Your task to perform on an android device: View the shopping cart on newegg. Add alienware aurora to the cart on newegg, then select checkout. Image 0: 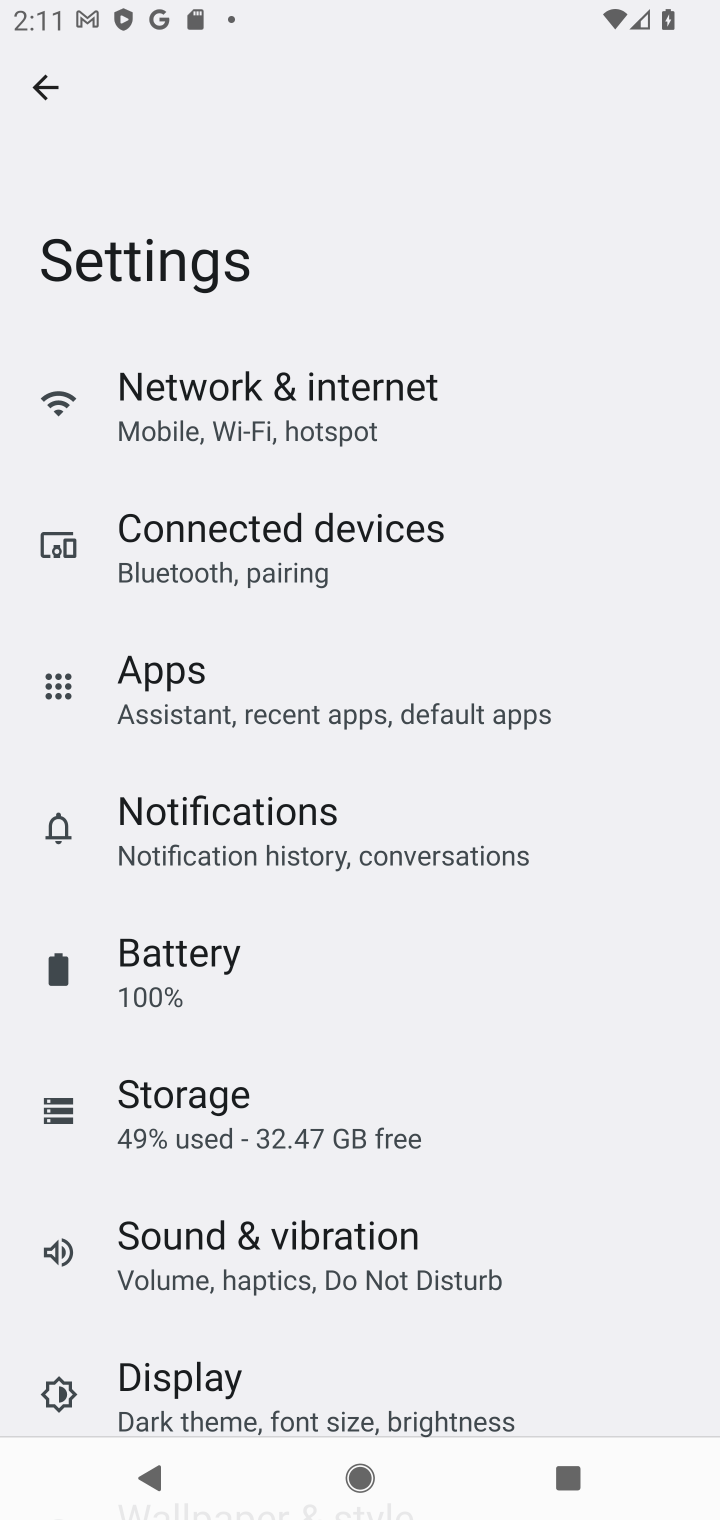
Step 0: press home button
Your task to perform on an android device: View the shopping cart on newegg. Add alienware aurora to the cart on newegg, then select checkout. Image 1: 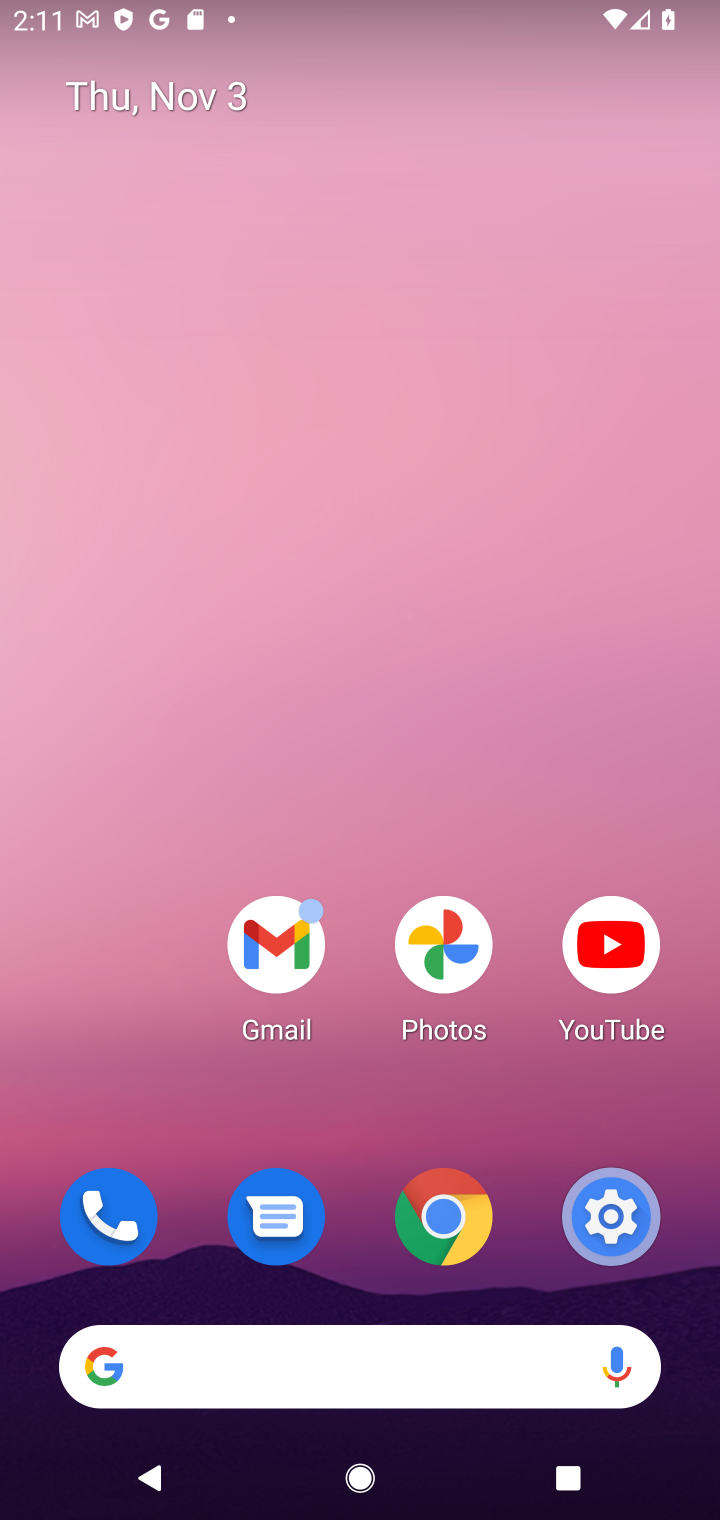
Step 1: drag from (354, 1154) to (407, 0)
Your task to perform on an android device: View the shopping cart on newegg. Add alienware aurora to the cart on newegg, then select checkout. Image 2: 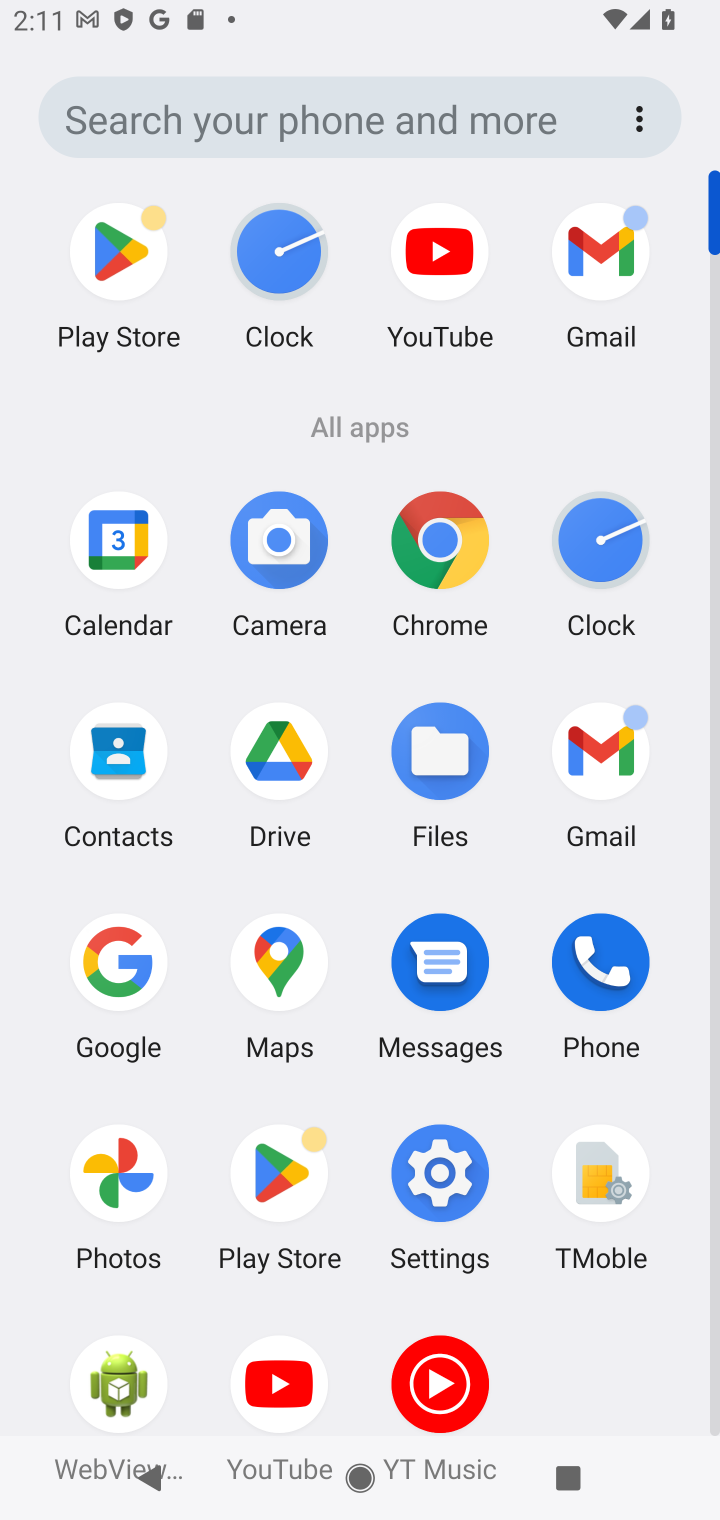
Step 2: click (432, 525)
Your task to perform on an android device: View the shopping cart on newegg. Add alienware aurora to the cart on newegg, then select checkout. Image 3: 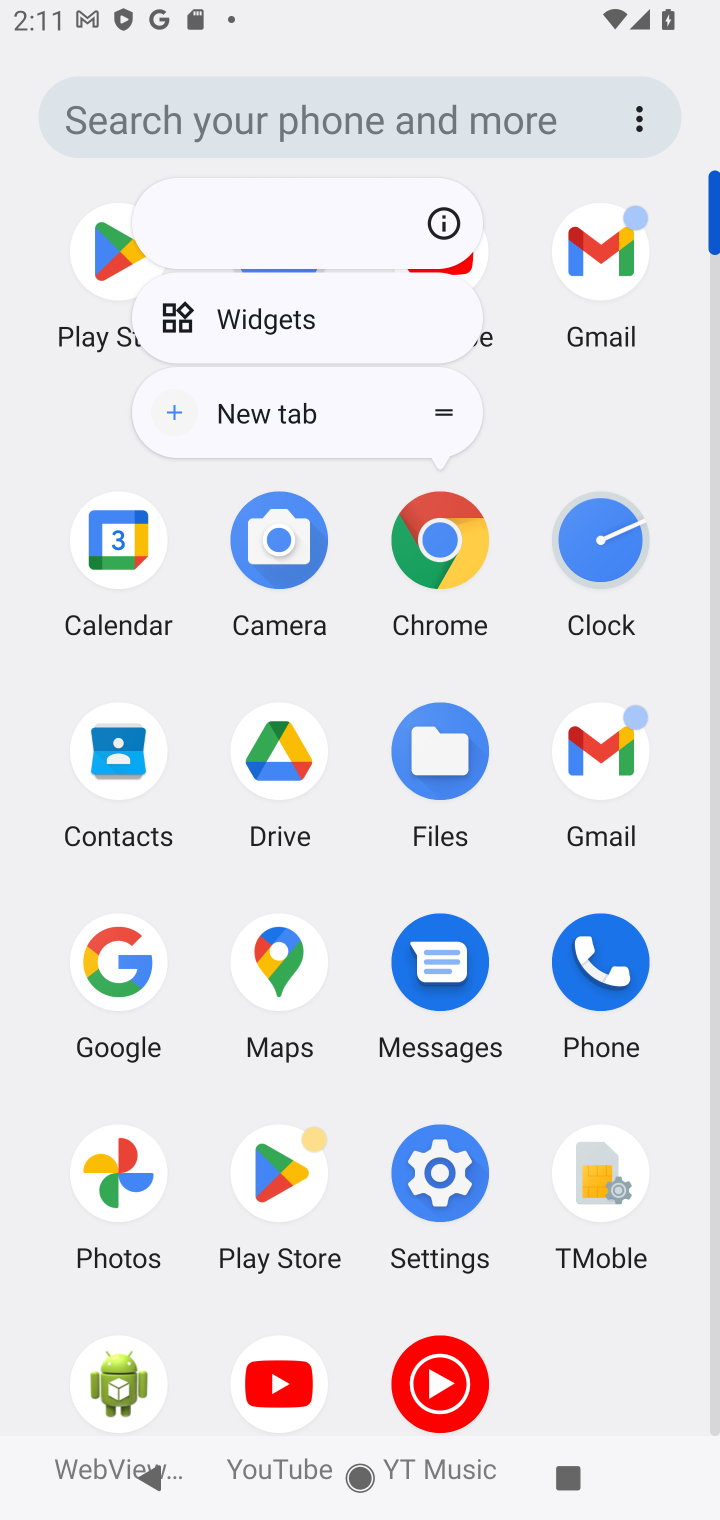
Step 3: click (433, 532)
Your task to perform on an android device: View the shopping cart on newegg. Add alienware aurora to the cart on newegg, then select checkout. Image 4: 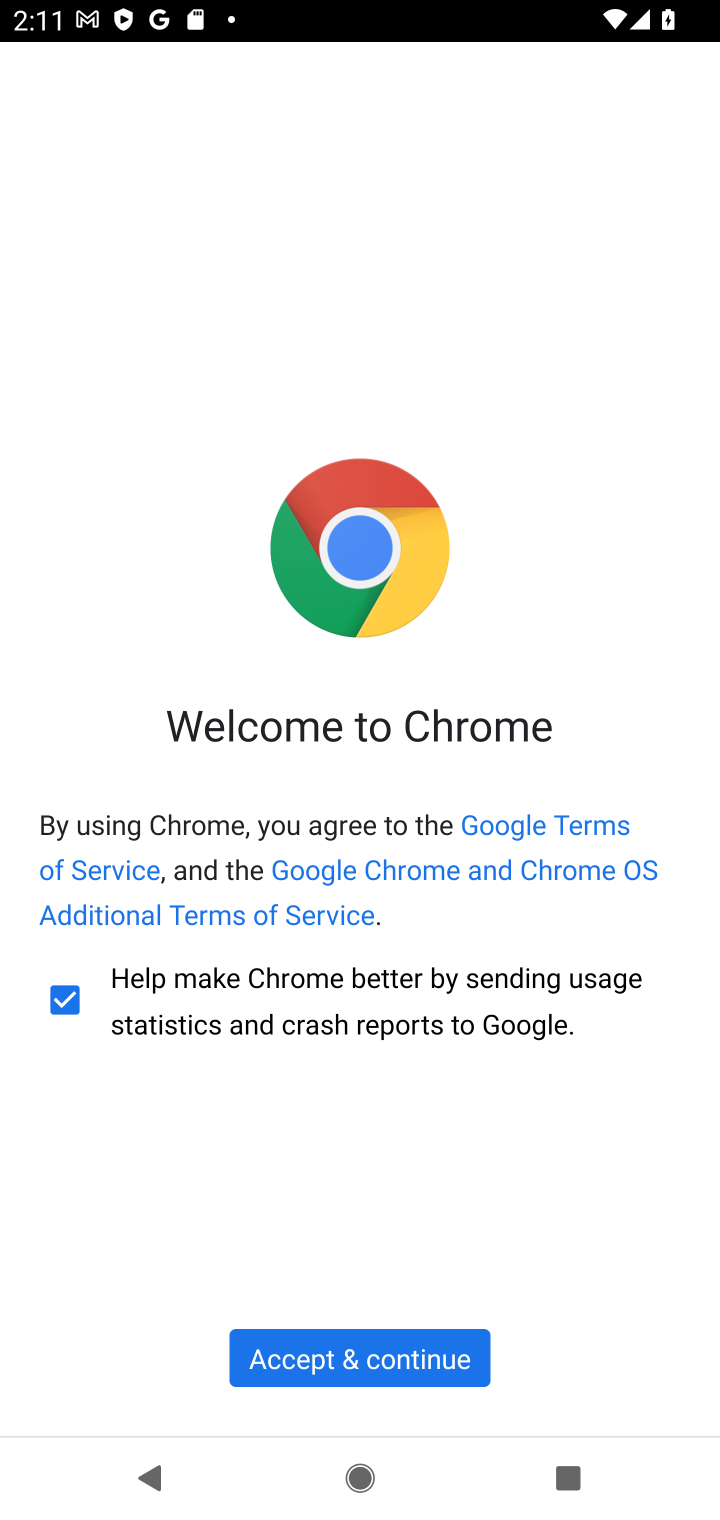
Step 4: click (341, 1351)
Your task to perform on an android device: View the shopping cart on newegg. Add alienware aurora to the cart on newegg, then select checkout. Image 5: 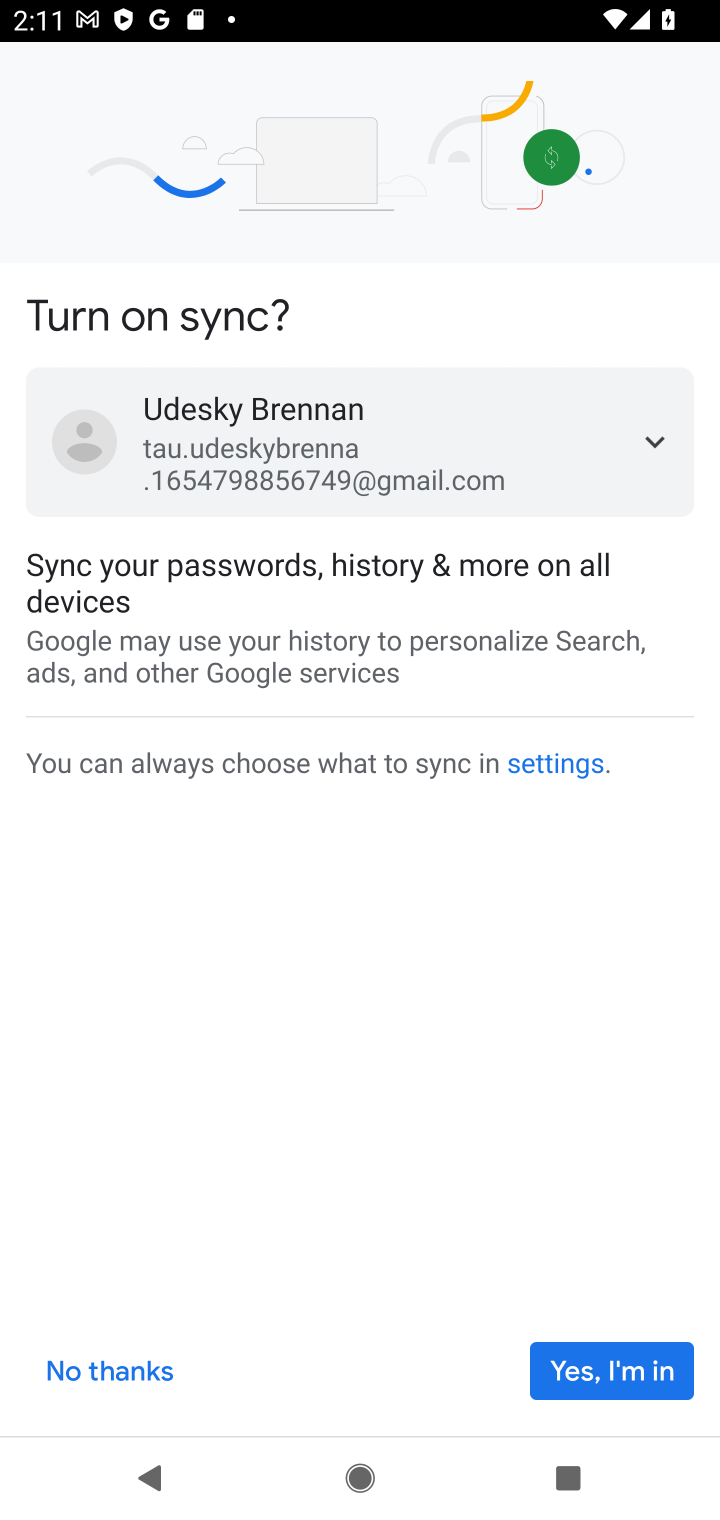
Step 5: click (605, 1372)
Your task to perform on an android device: View the shopping cart on newegg. Add alienware aurora to the cart on newegg, then select checkout. Image 6: 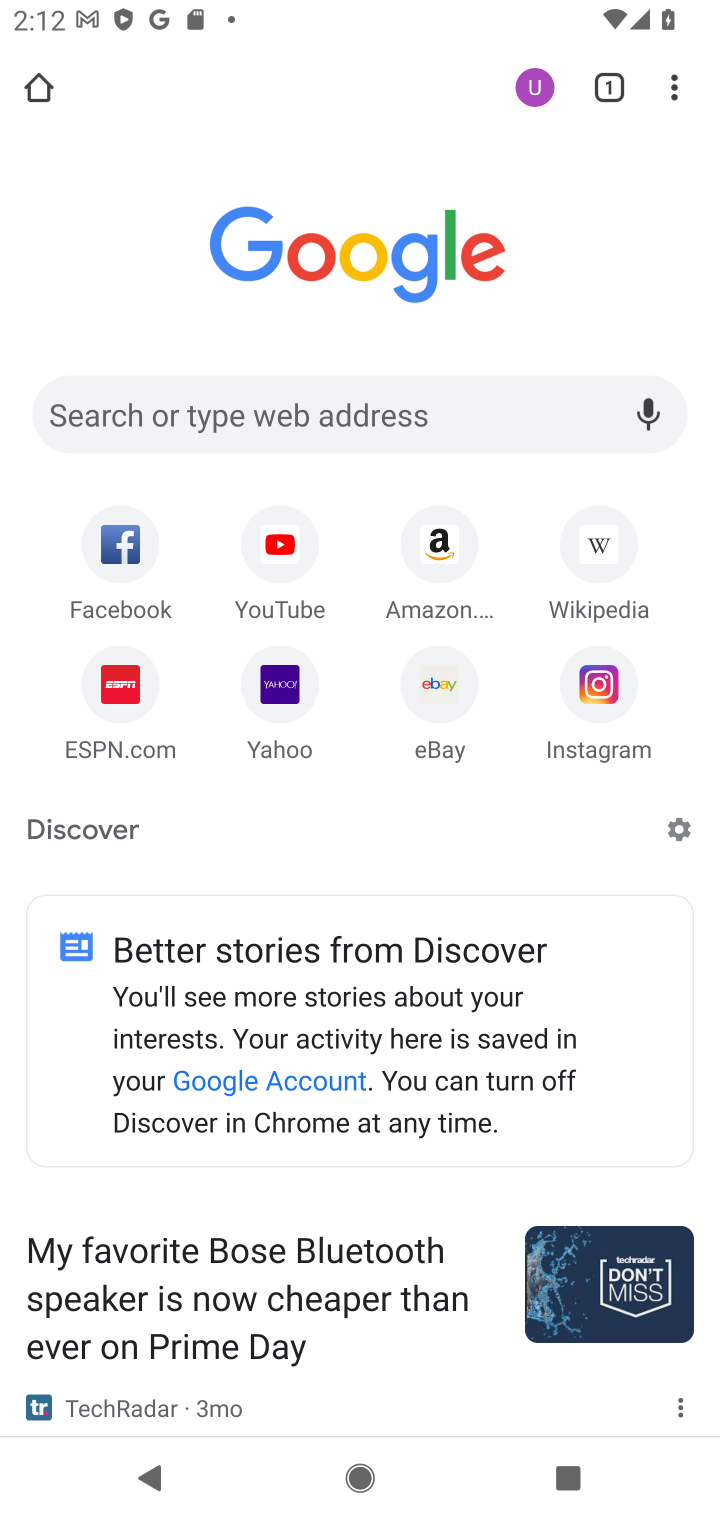
Step 6: click (144, 411)
Your task to perform on an android device: View the shopping cart on newegg. Add alienware aurora to the cart on newegg, then select checkout. Image 7: 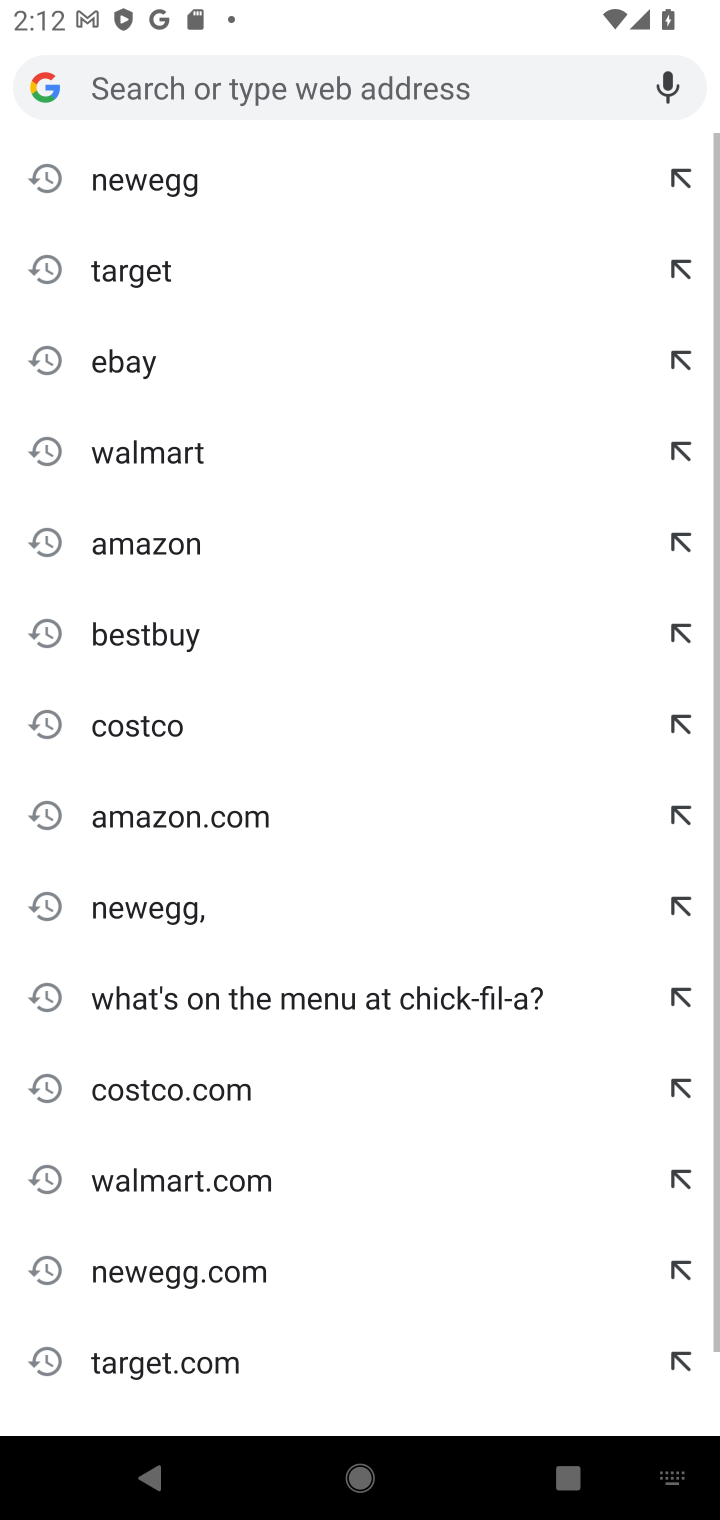
Step 7: click (190, 161)
Your task to perform on an android device: View the shopping cart on newegg. Add alienware aurora to the cart on newegg, then select checkout. Image 8: 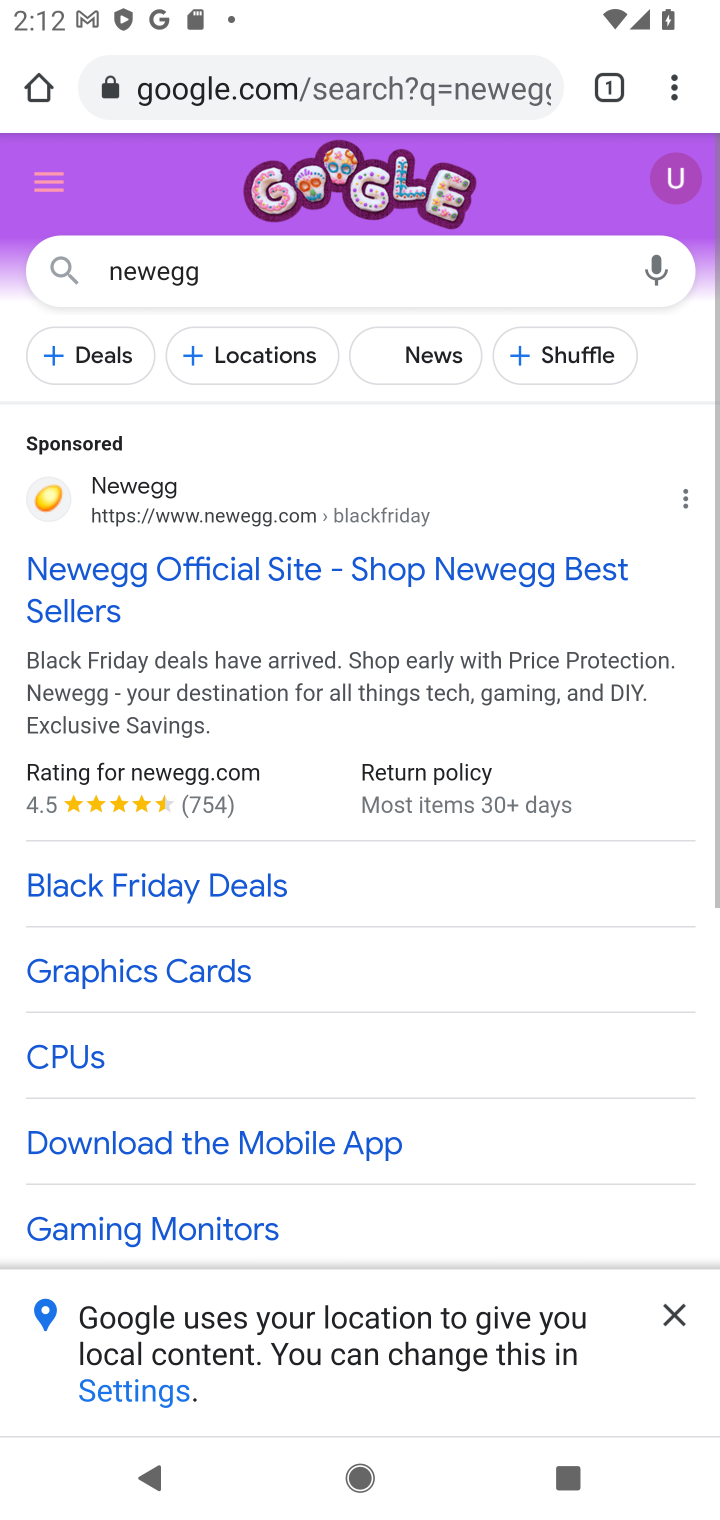
Step 8: click (673, 1306)
Your task to perform on an android device: View the shopping cart on newegg. Add alienware aurora to the cart on newegg, then select checkout. Image 9: 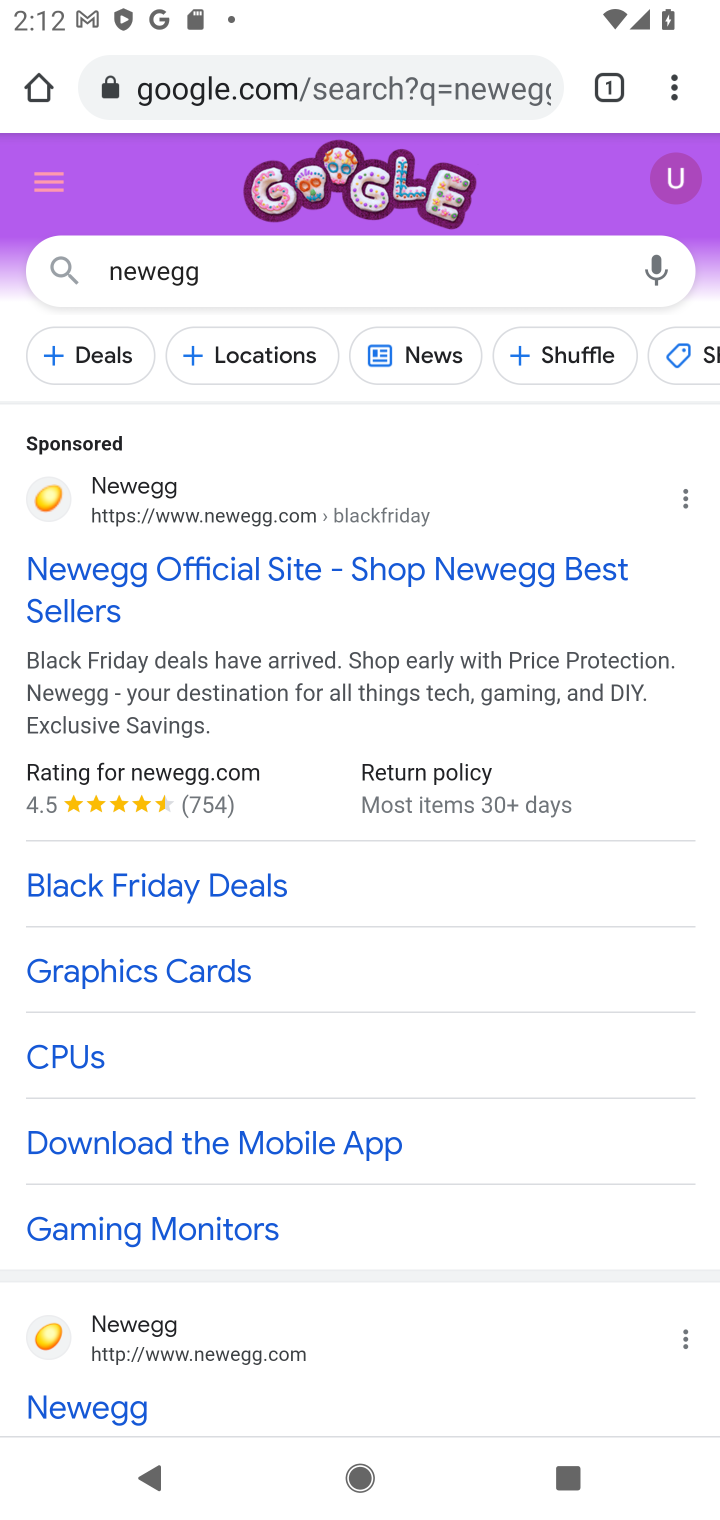
Step 9: click (160, 584)
Your task to perform on an android device: View the shopping cart on newegg. Add alienware aurora to the cart on newegg, then select checkout. Image 10: 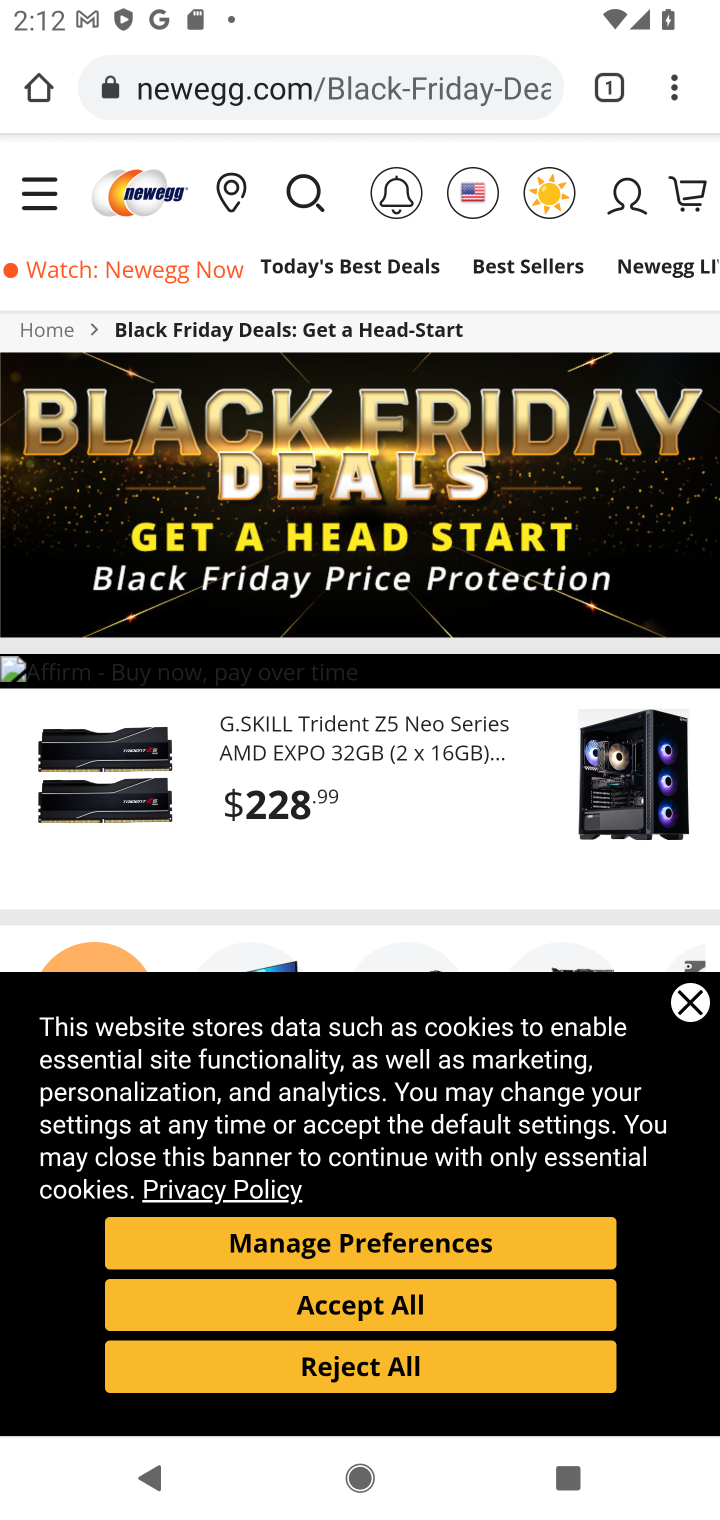
Step 10: click (304, 191)
Your task to perform on an android device: View the shopping cart on newegg. Add alienware aurora to the cart on newegg, then select checkout. Image 11: 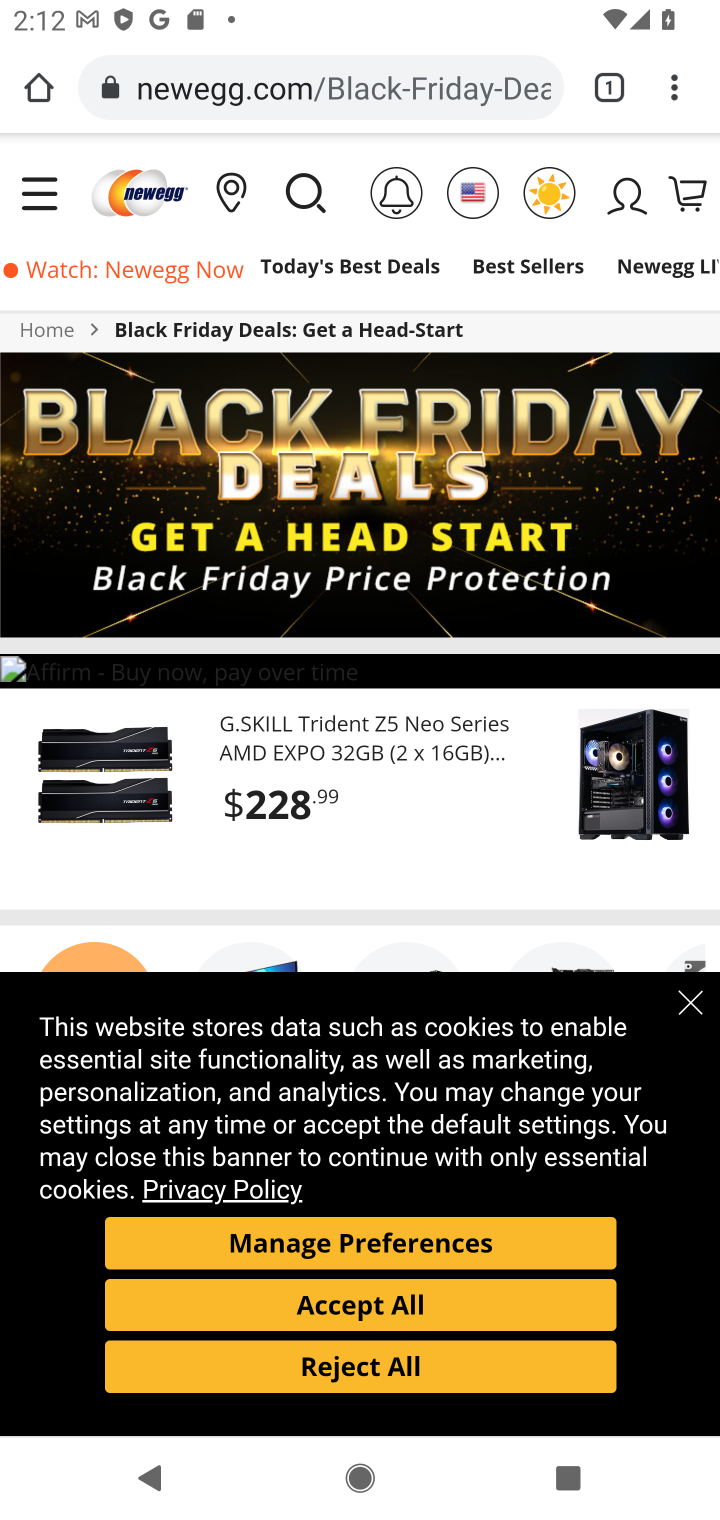
Step 11: click (340, 1296)
Your task to perform on an android device: View the shopping cart on newegg. Add alienware aurora to the cart on newegg, then select checkout. Image 12: 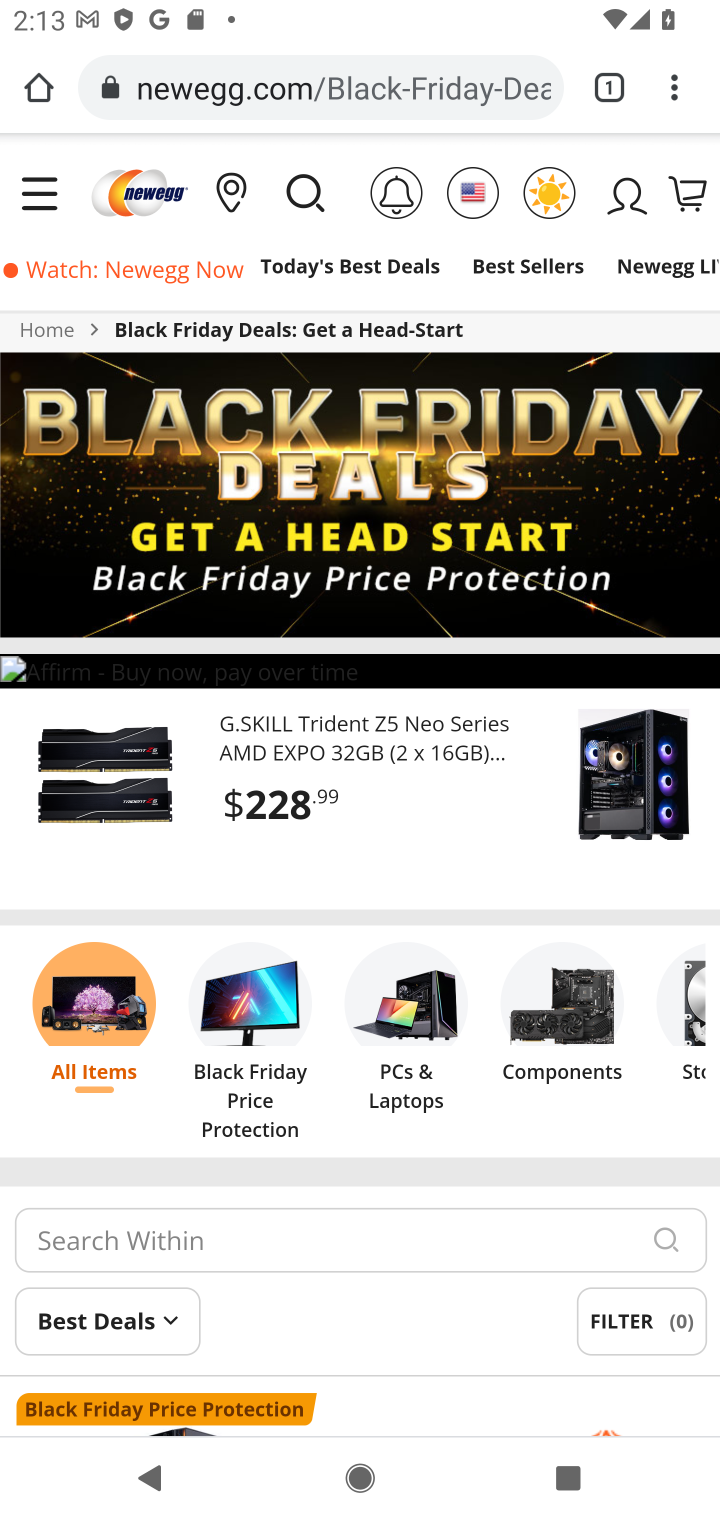
Step 12: click (307, 186)
Your task to perform on an android device: View the shopping cart on newegg. Add alienware aurora to the cart on newegg, then select checkout. Image 13: 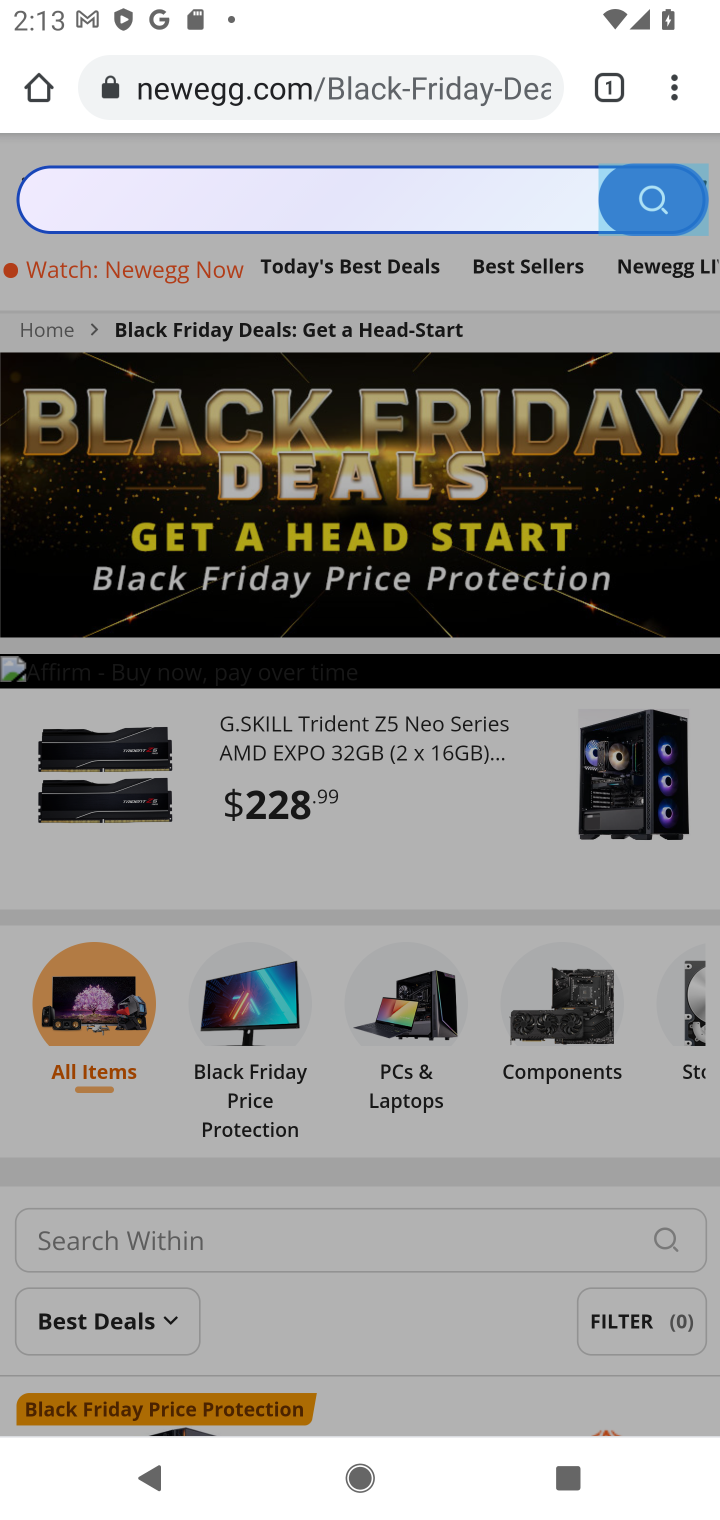
Step 13: click (110, 193)
Your task to perform on an android device: View the shopping cart on newegg. Add alienware aurora to the cart on newegg, then select checkout. Image 14: 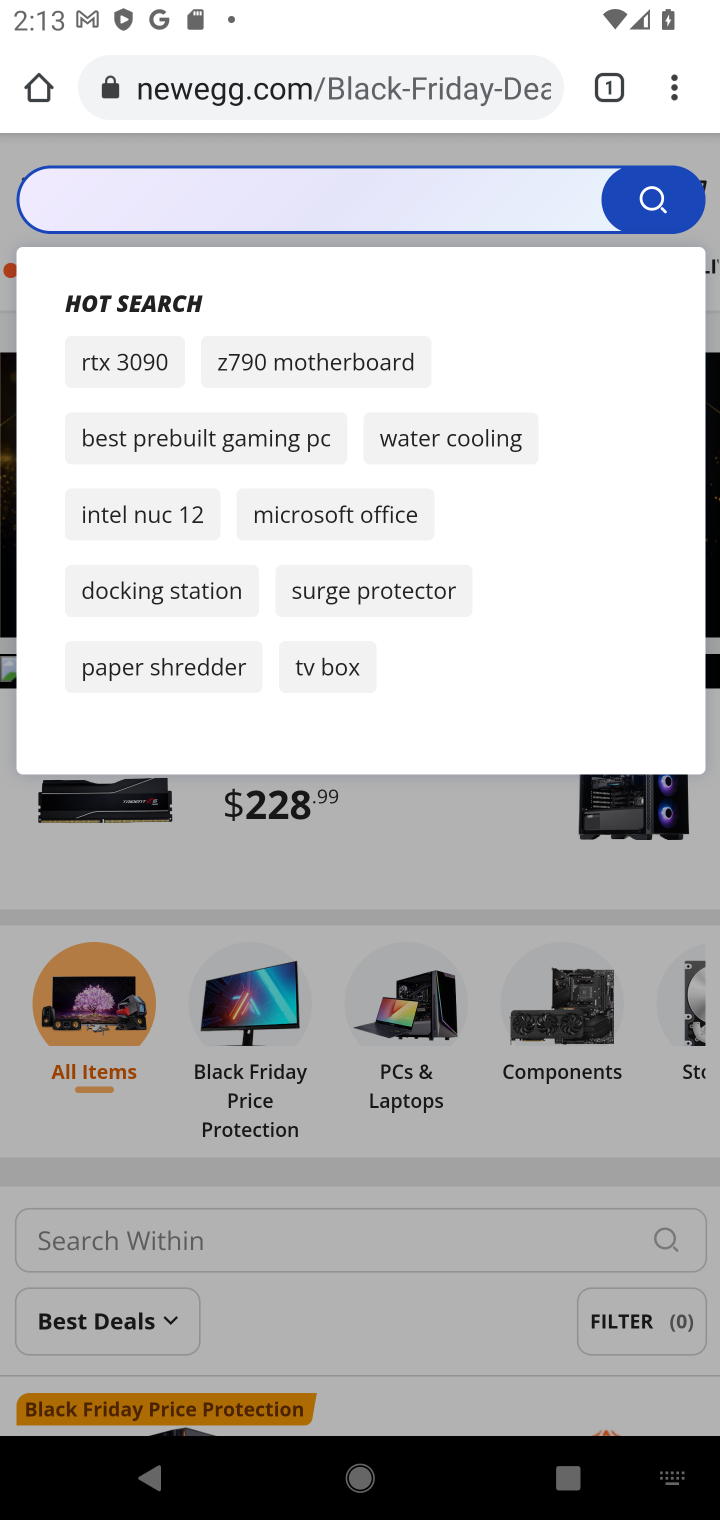
Step 14: type "alienware aurora"
Your task to perform on an android device: View the shopping cart on newegg. Add alienware aurora to the cart on newegg, then select checkout. Image 15: 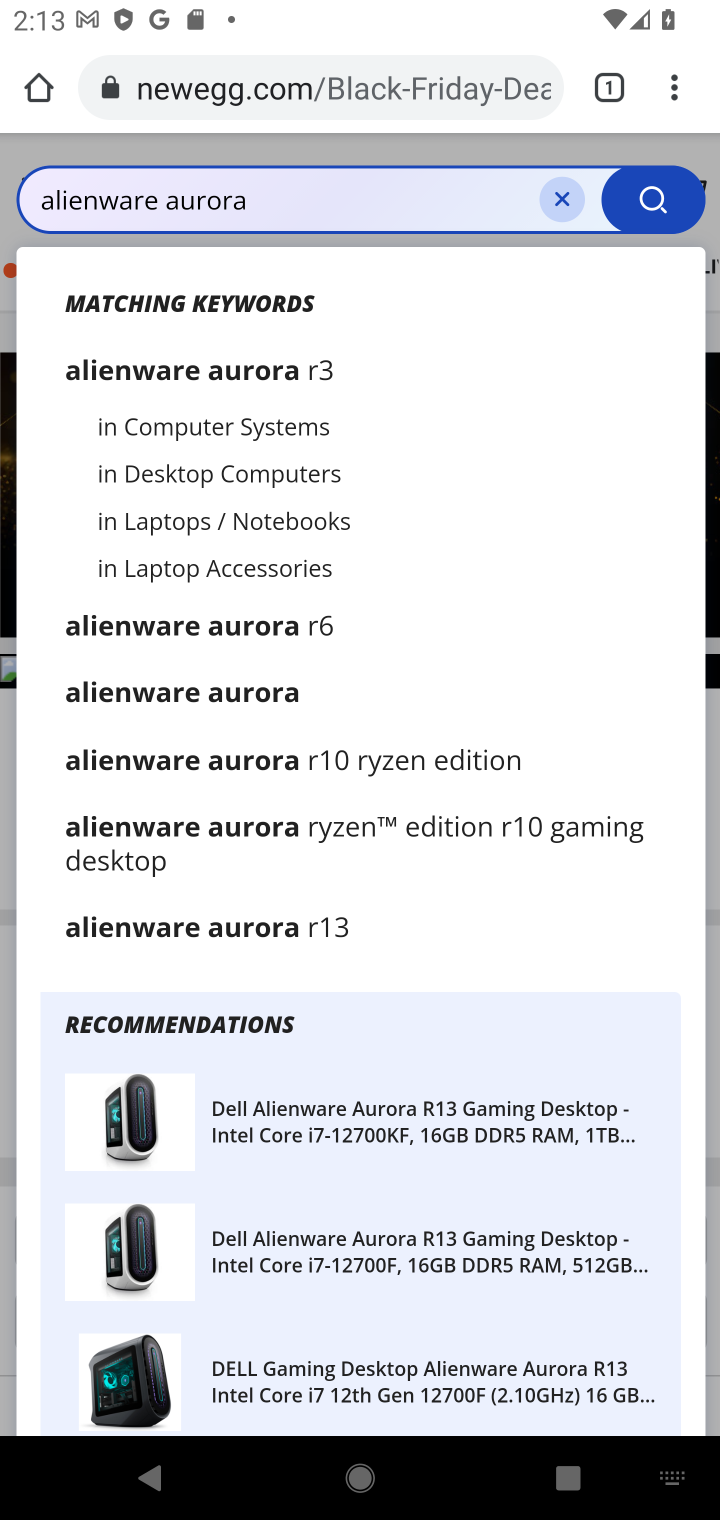
Step 15: click (140, 692)
Your task to perform on an android device: View the shopping cart on newegg. Add alienware aurora to the cart on newegg, then select checkout. Image 16: 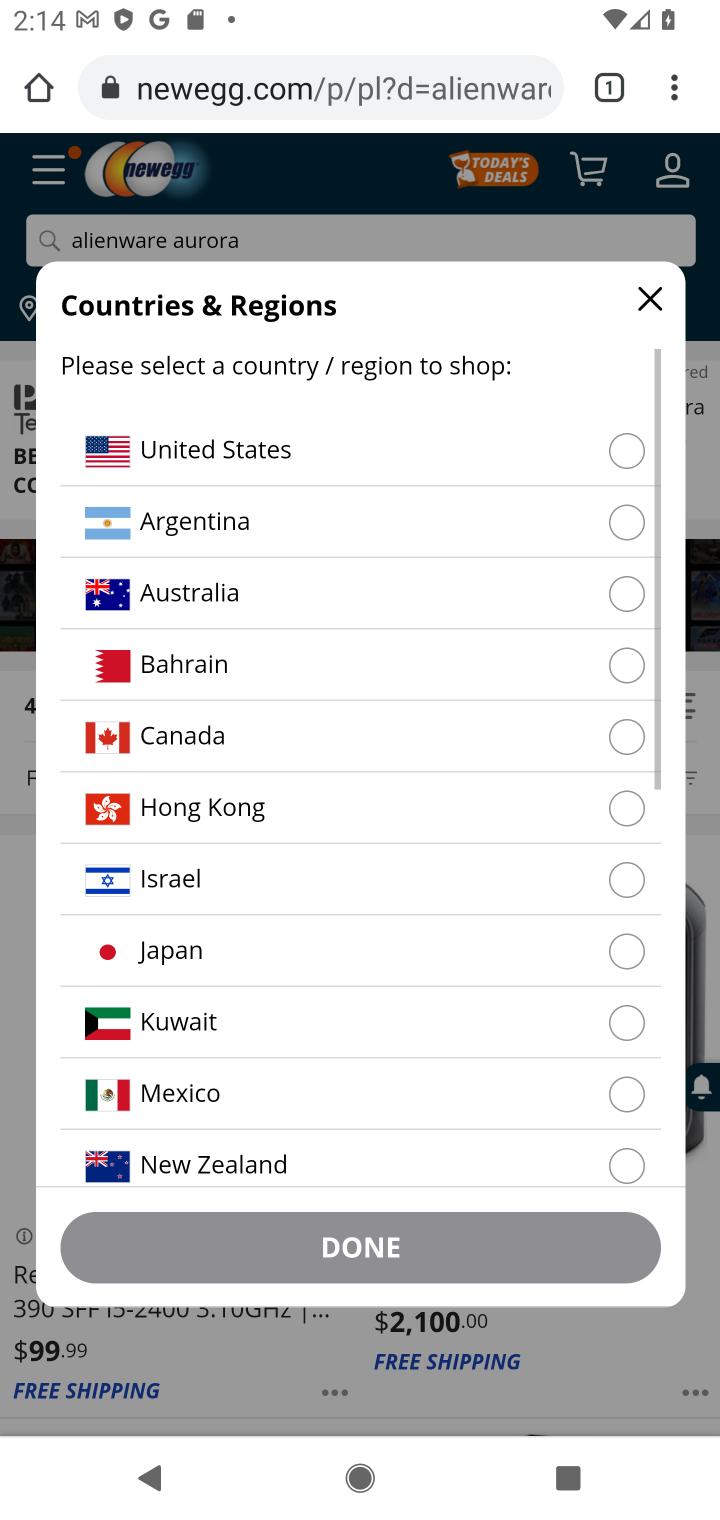
Step 16: click (626, 450)
Your task to perform on an android device: View the shopping cart on newegg. Add alienware aurora to the cart on newegg, then select checkout. Image 17: 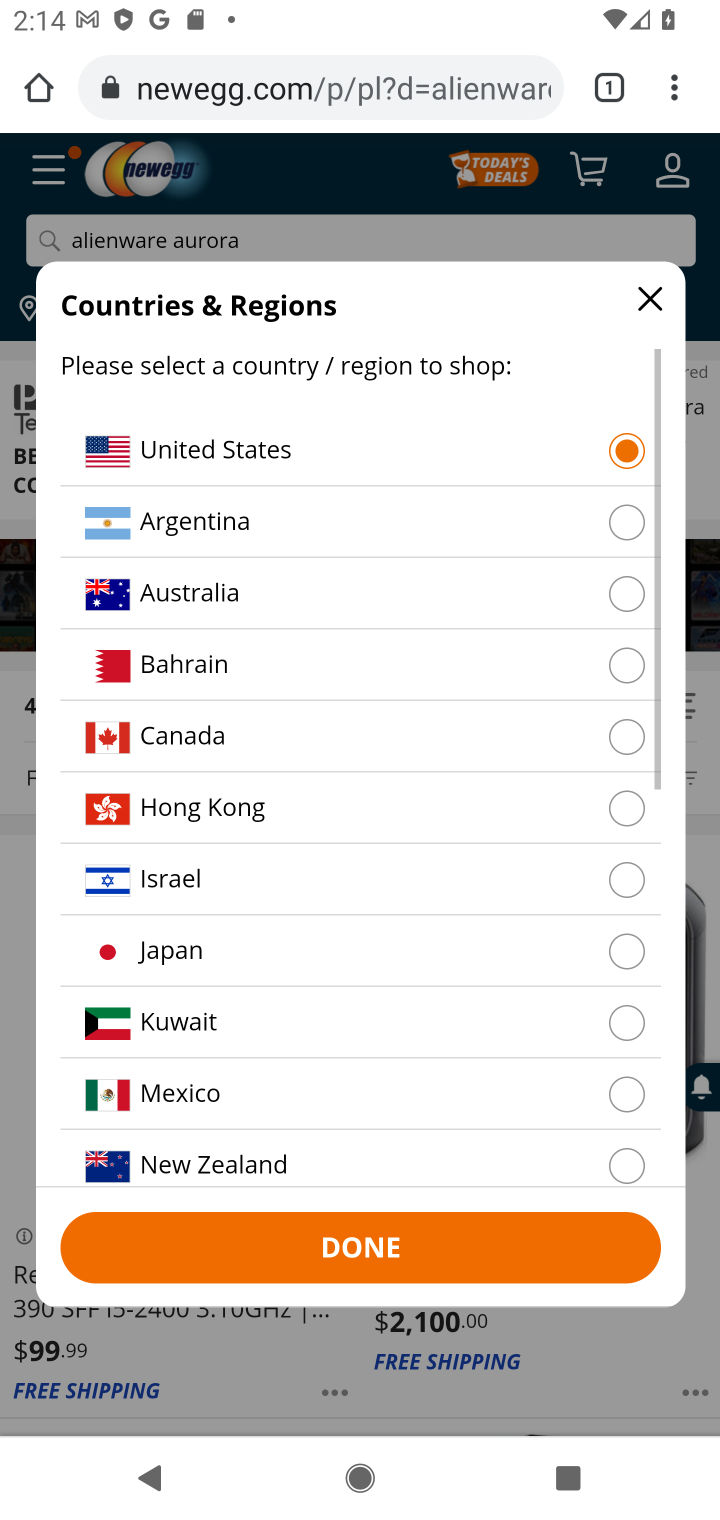
Step 17: click (358, 1239)
Your task to perform on an android device: View the shopping cart on newegg. Add alienware aurora to the cart on newegg, then select checkout. Image 18: 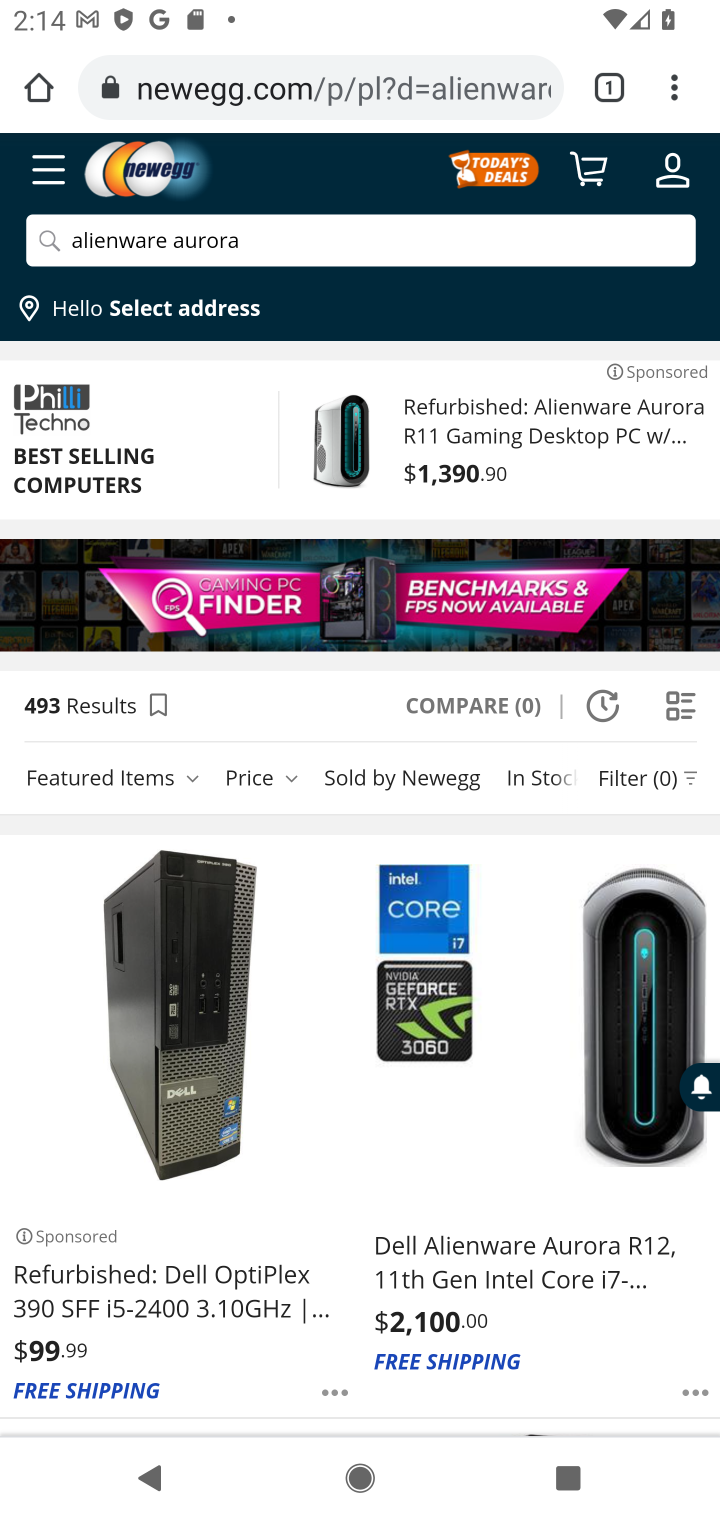
Step 18: click (579, 1049)
Your task to perform on an android device: View the shopping cart on newegg. Add alienware aurora to the cart on newegg, then select checkout. Image 19: 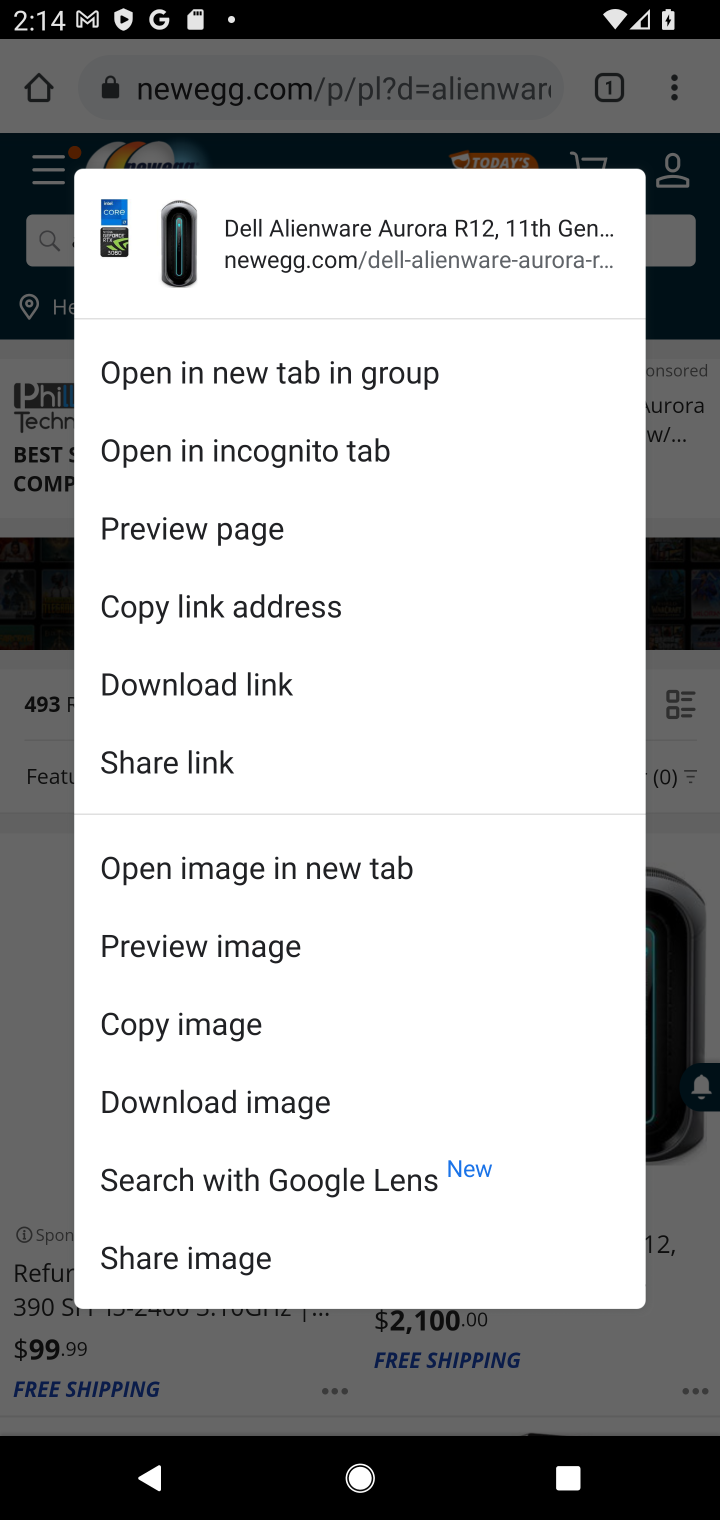
Step 19: click (15, 1034)
Your task to perform on an android device: View the shopping cart on newegg. Add alienware aurora to the cart on newegg, then select checkout. Image 20: 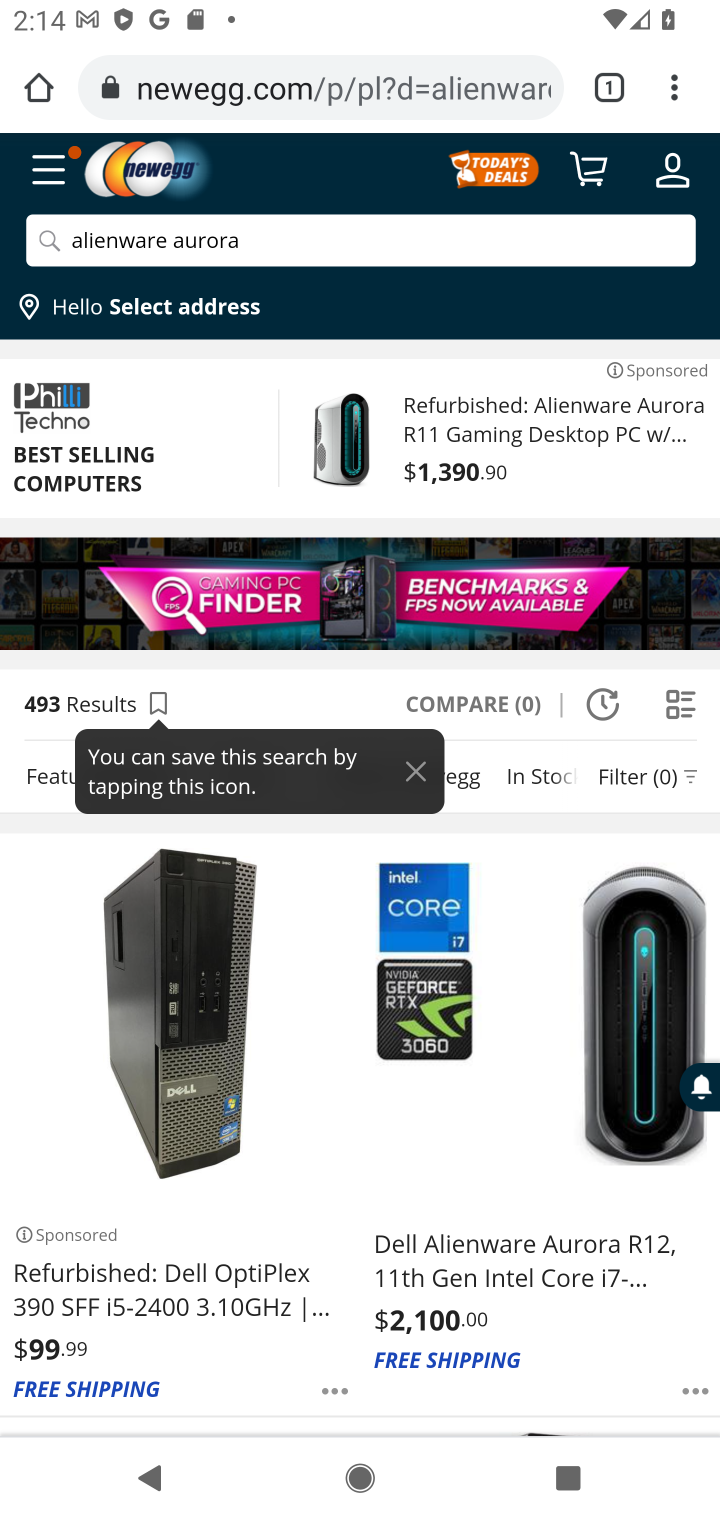
Step 20: click (516, 1261)
Your task to perform on an android device: View the shopping cart on newegg. Add alienware aurora to the cart on newegg, then select checkout. Image 21: 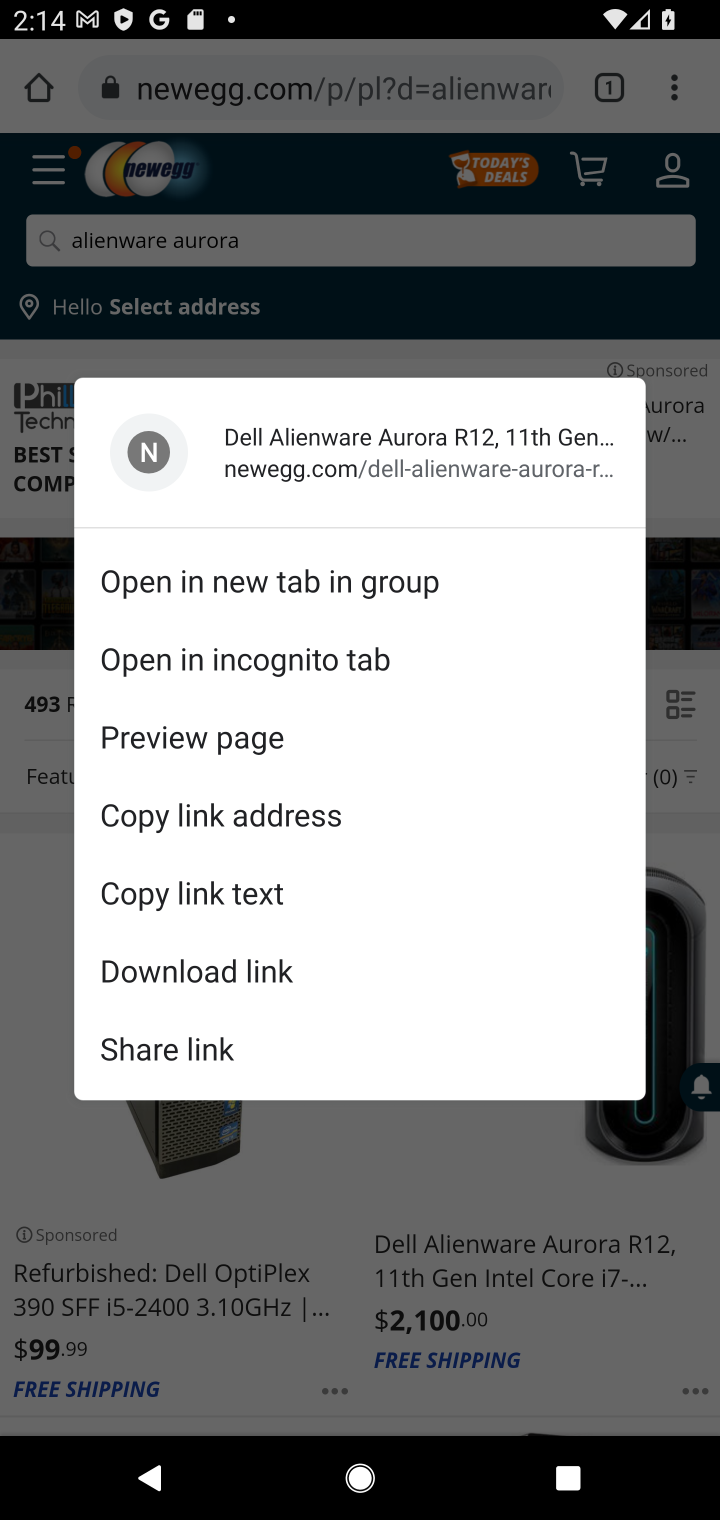
Step 21: click (245, 1245)
Your task to perform on an android device: View the shopping cart on newegg. Add alienware aurora to the cart on newegg, then select checkout. Image 22: 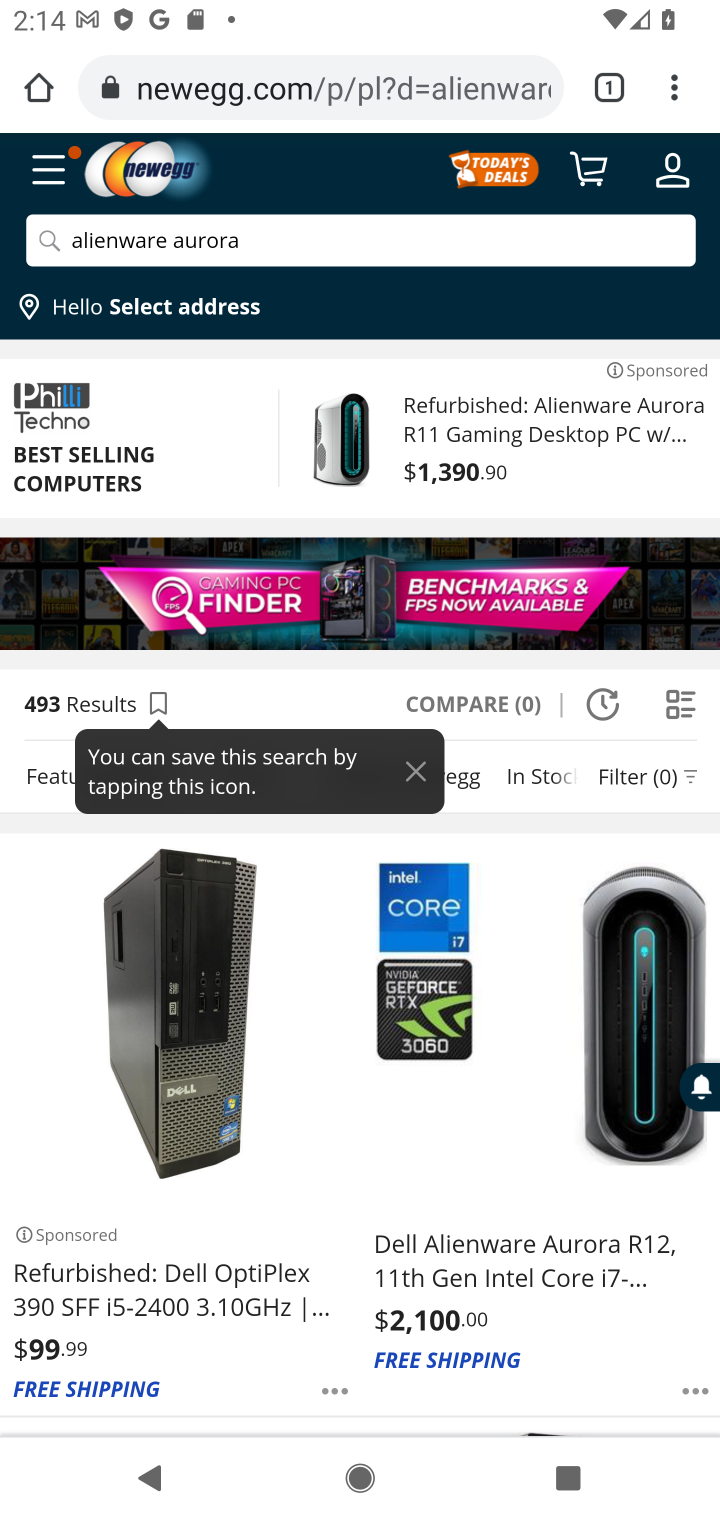
Step 22: drag from (534, 1298) to (481, 810)
Your task to perform on an android device: View the shopping cart on newegg. Add alienware aurora to the cart on newegg, then select checkout. Image 23: 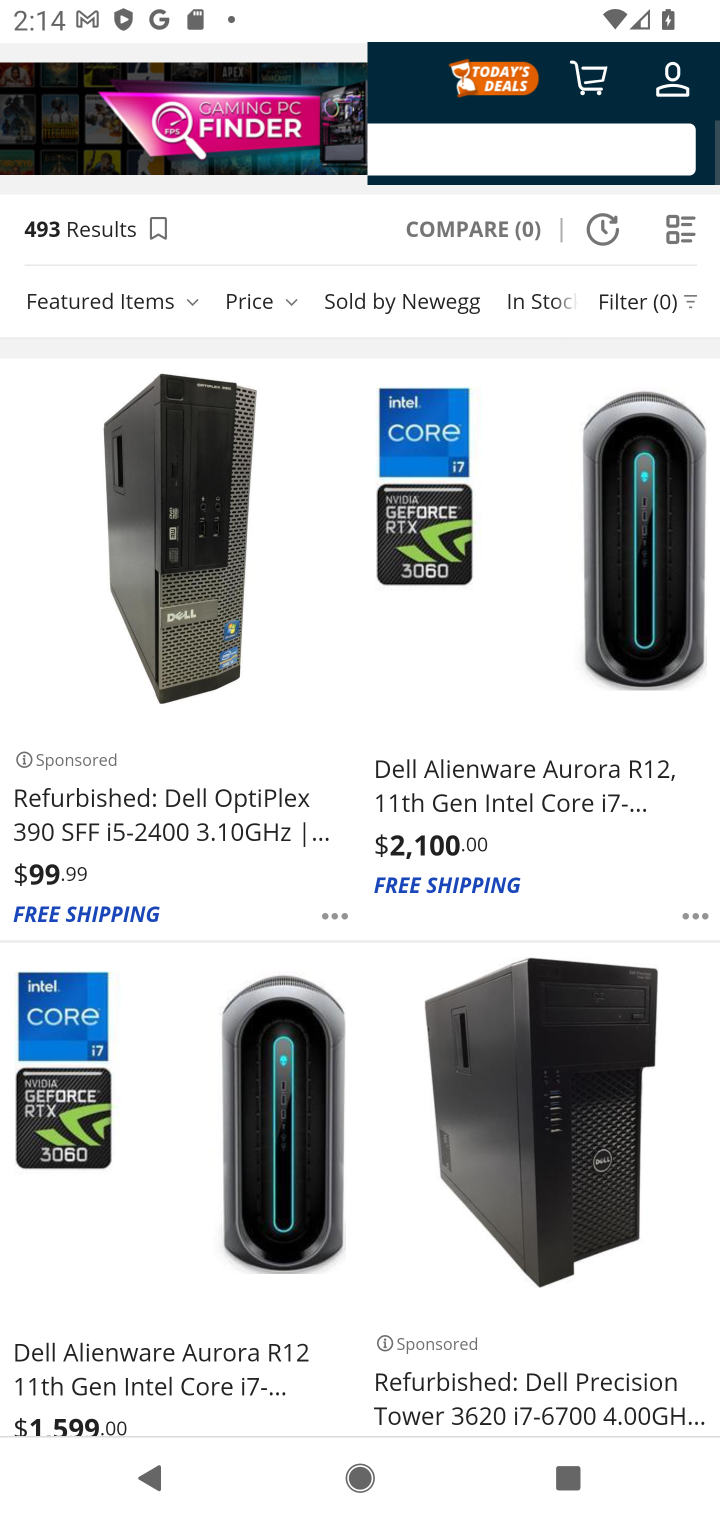
Step 23: click (224, 1111)
Your task to perform on an android device: View the shopping cart on newegg. Add alienware aurora to the cart on newegg, then select checkout. Image 24: 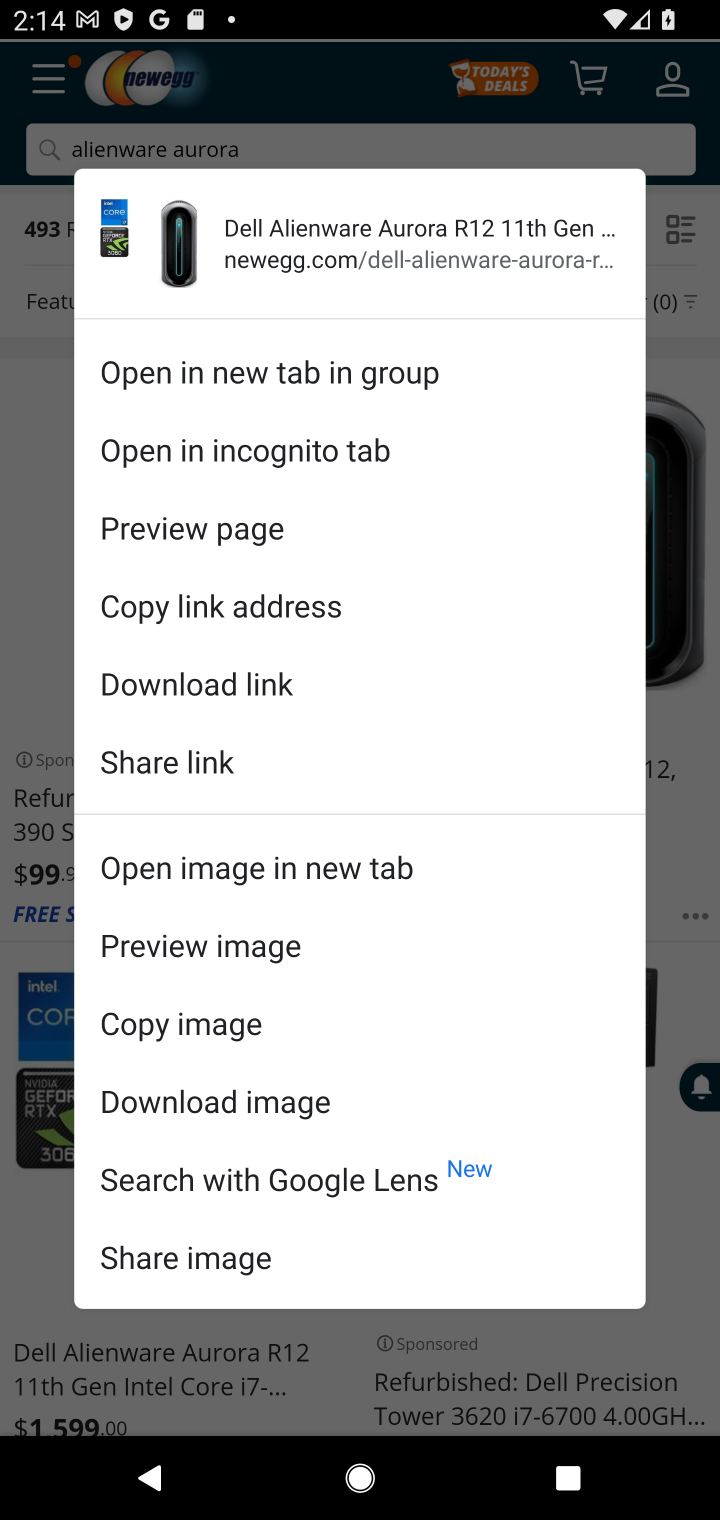
Step 24: click (15, 1182)
Your task to perform on an android device: View the shopping cart on newegg. Add alienware aurora to the cart on newegg, then select checkout. Image 25: 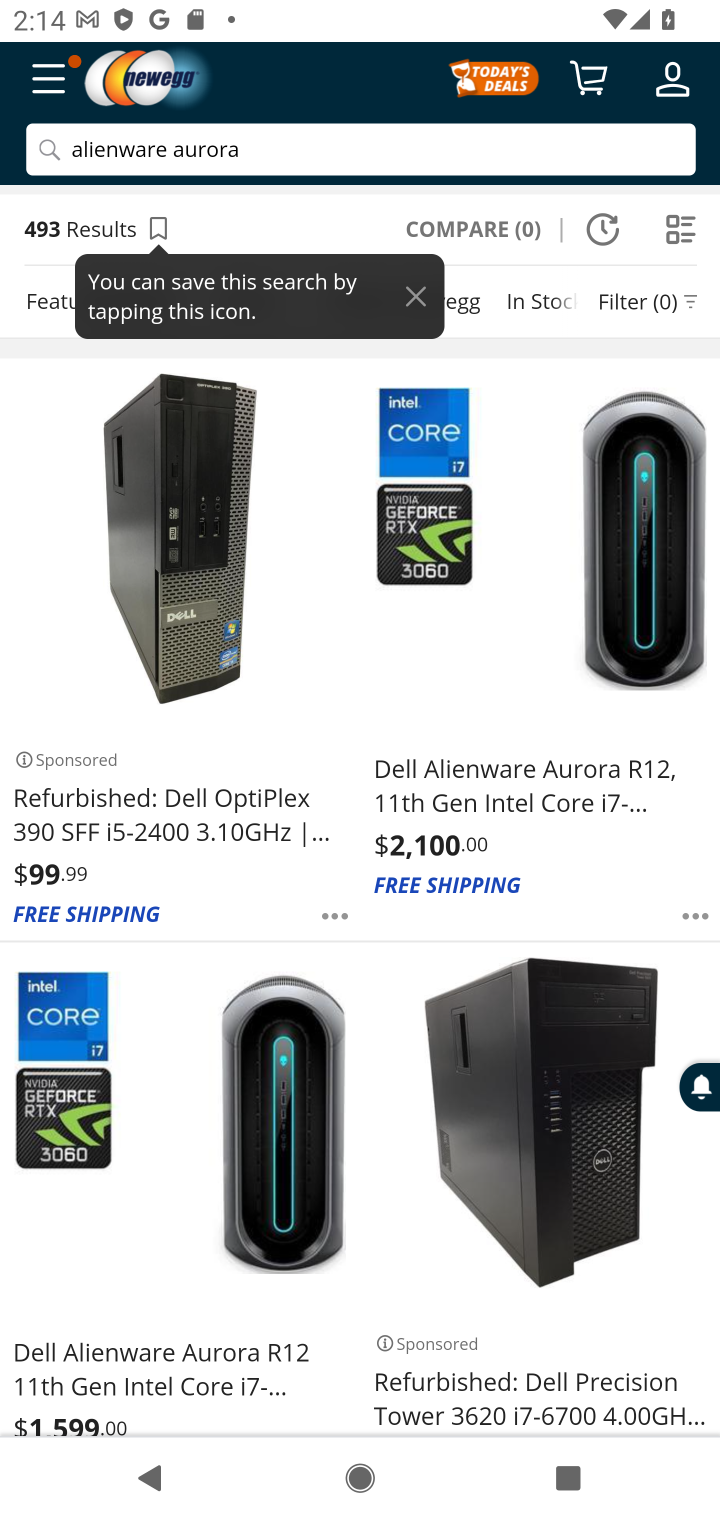
Step 25: click (161, 1349)
Your task to perform on an android device: View the shopping cart on newegg. Add alienware aurora to the cart on newegg, then select checkout. Image 26: 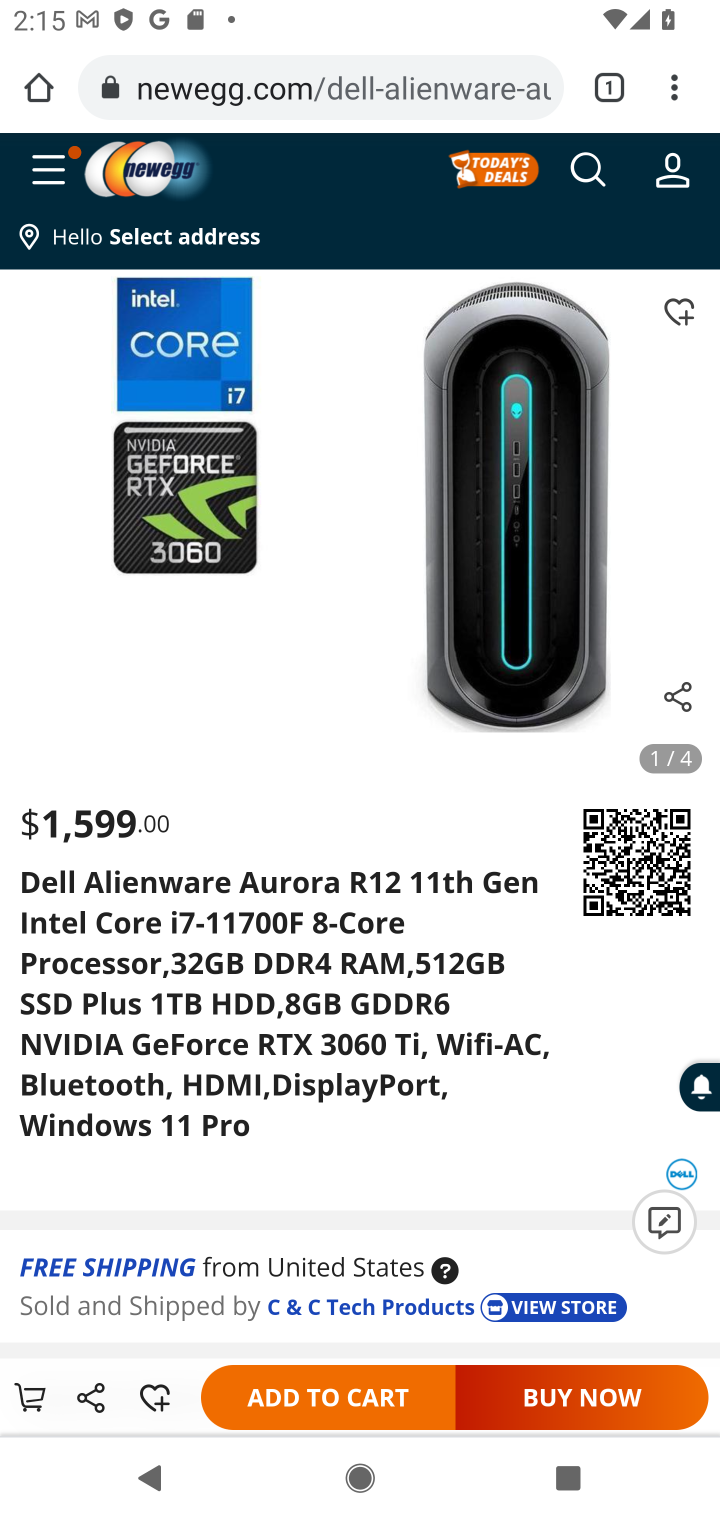
Step 26: click (322, 1398)
Your task to perform on an android device: View the shopping cart on newegg. Add alienware aurora to the cart on newegg, then select checkout. Image 27: 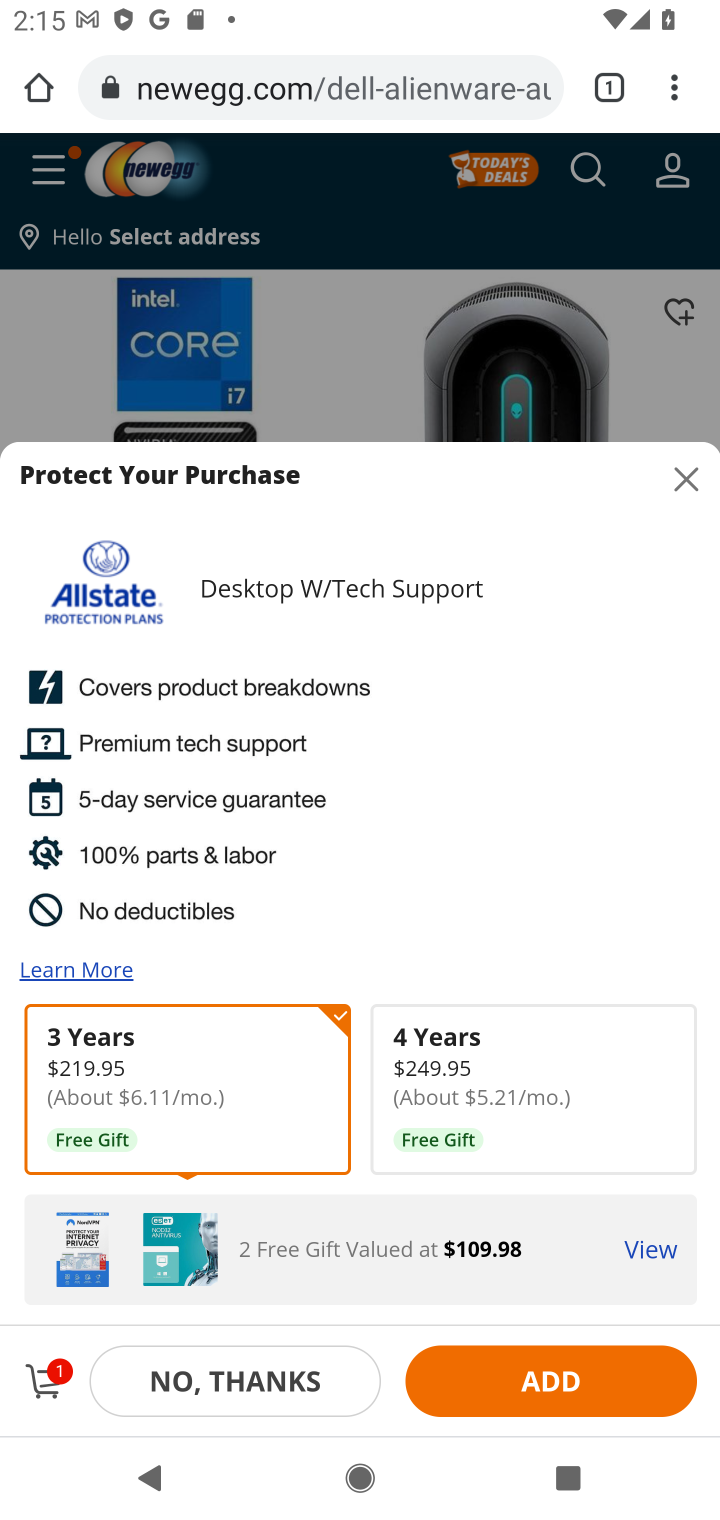
Step 27: click (48, 1374)
Your task to perform on an android device: View the shopping cart on newegg. Add alienware aurora to the cart on newegg, then select checkout. Image 28: 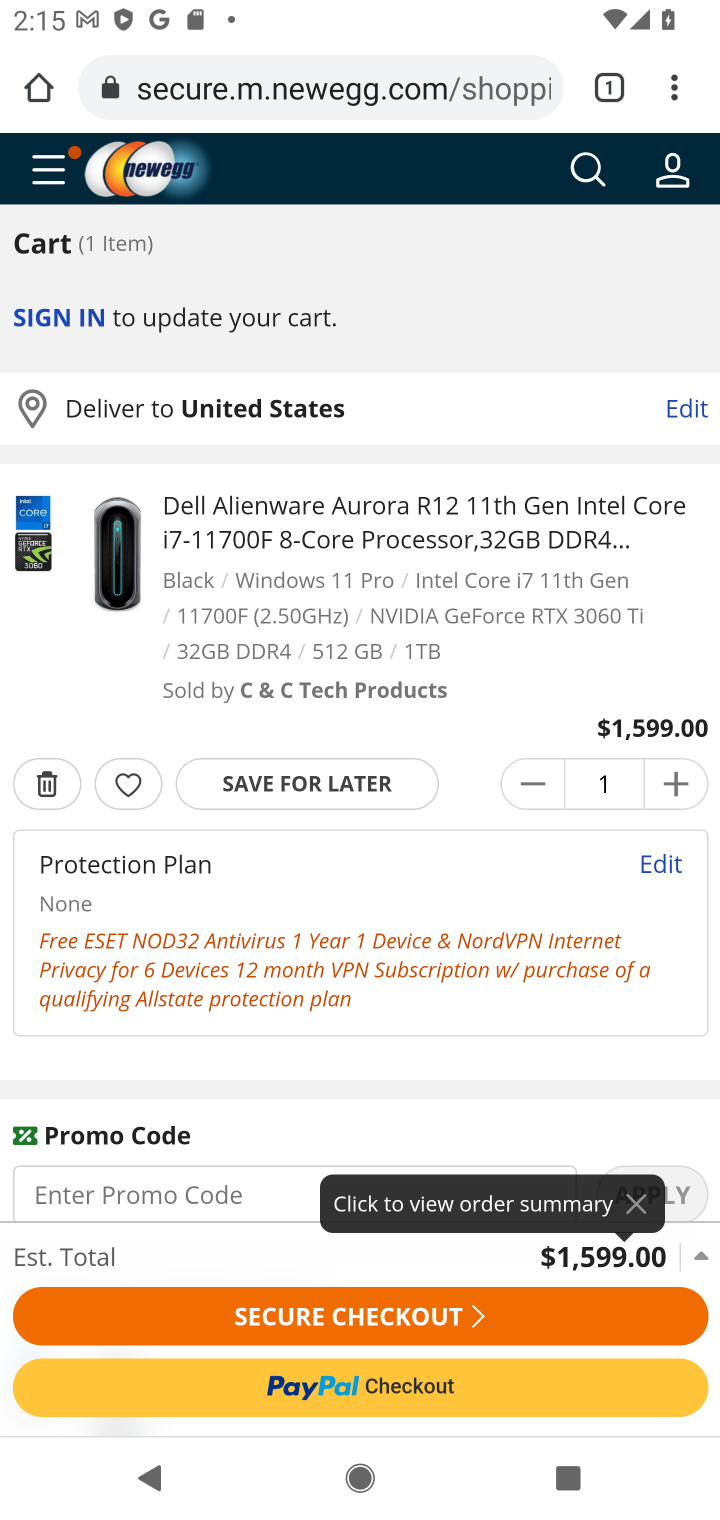
Step 28: click (358, 1313)
Your task to perform on an android device: View the shopping cart on newegg. Add alienware aurora to the cart on newegg, then select checkout. Image 29: 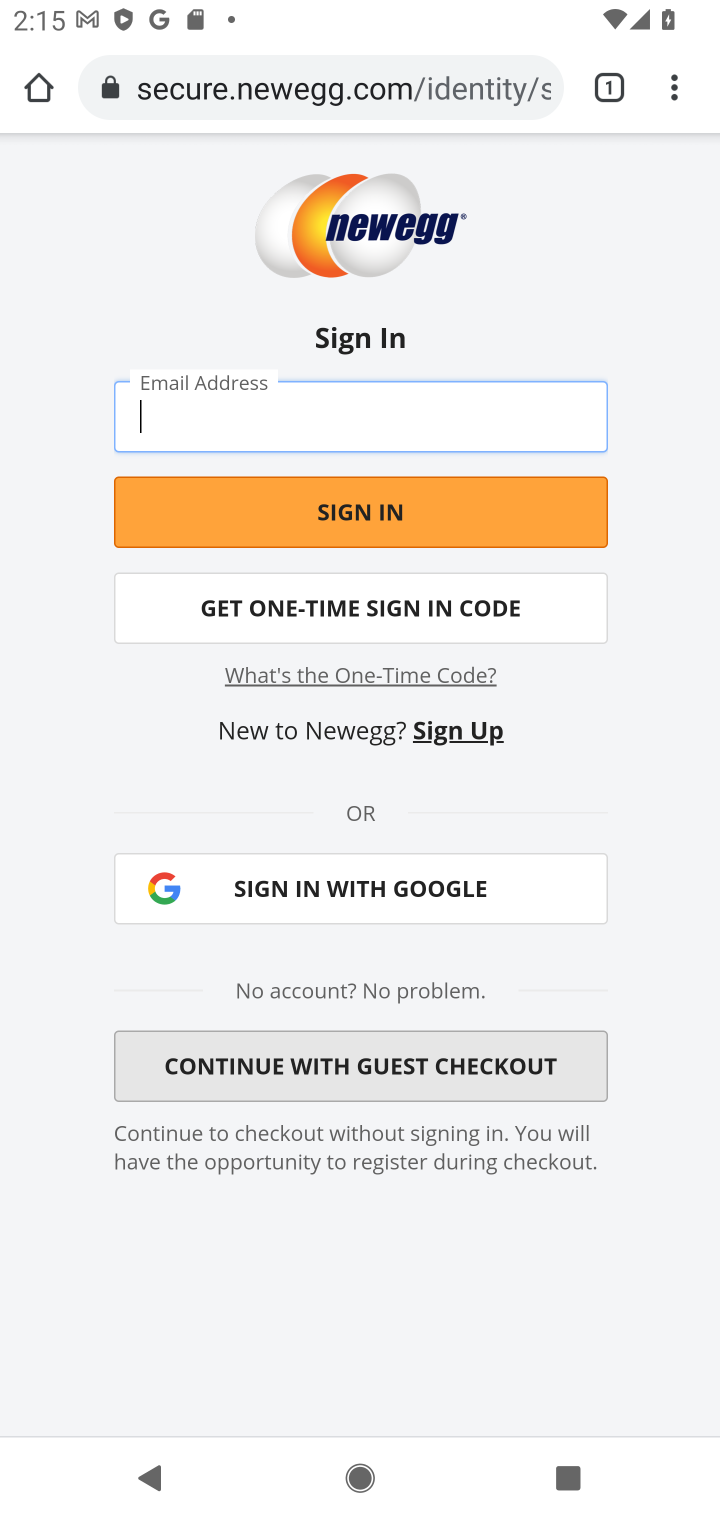
Step 29: task complete